Your task to perform on an android device: all mails in gmail Image 0: 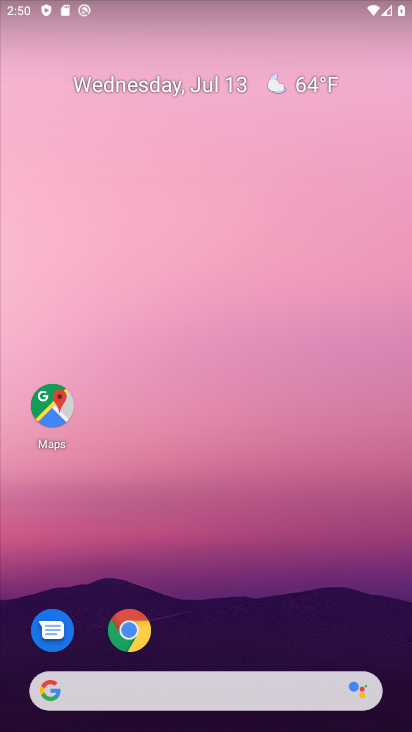
Step 0: drag from (279, 594) to (350, 127)
Your task to perform on an android device: all mails in gmail Image 1: 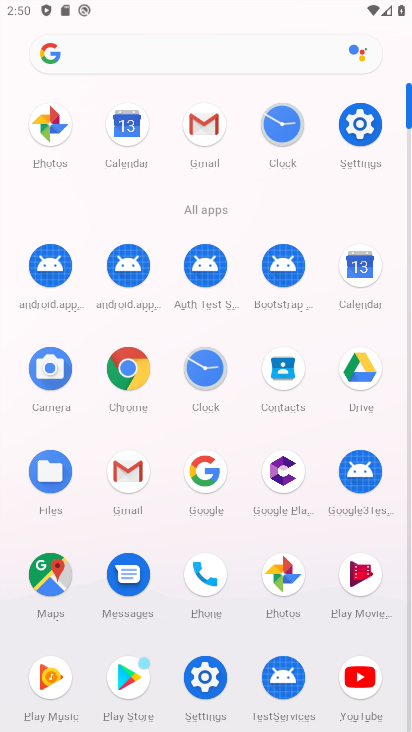
Step 1: click (194, 139)
Your task to perform on an android device: all mails in gmail Image 2: 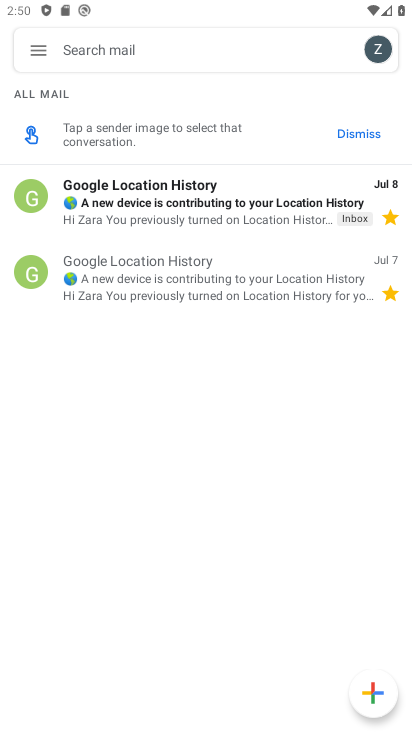
Step 2: click (42, 64)
Your task to perform on an android device: all mails in gmail Image 3: 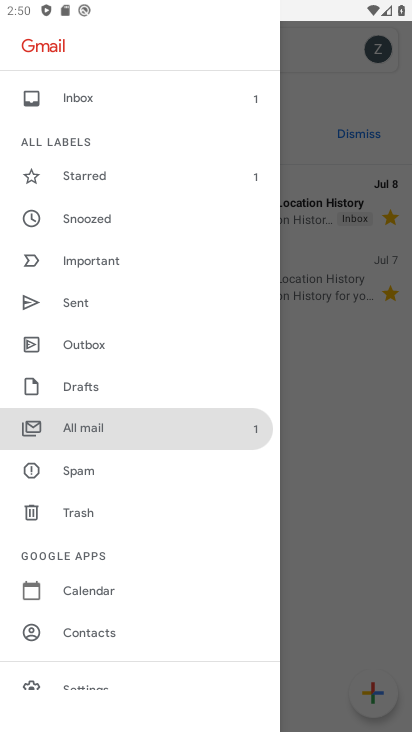
Step 3: click (118, 426)
Your task to perform on an android device: all mails in gmail Image 4: 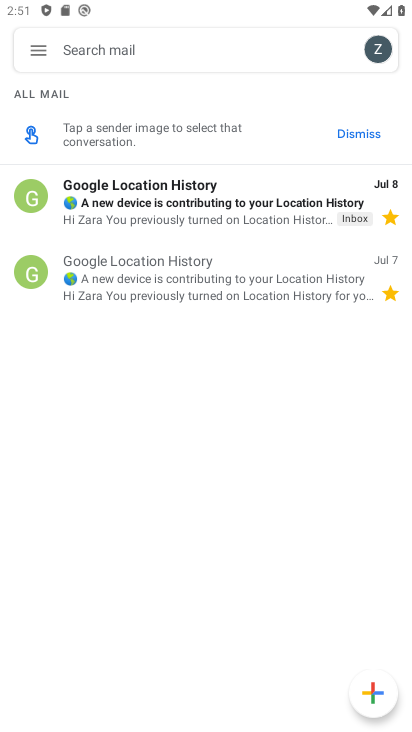
Step 4: task complete